Your task to perform on an android device: Open Google Chrome and click the shortcut for Amazon.com Image 0: 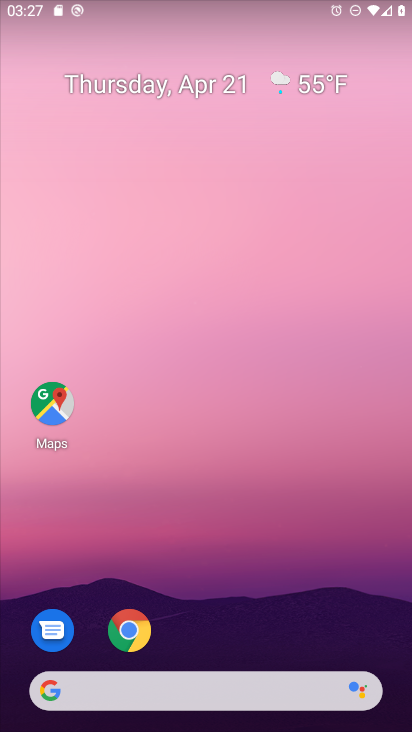
Step 0: click (133, 626)
Your task to perform on an android device: Open Google Chrome and click the shortcut for Amazon.com Image 1: 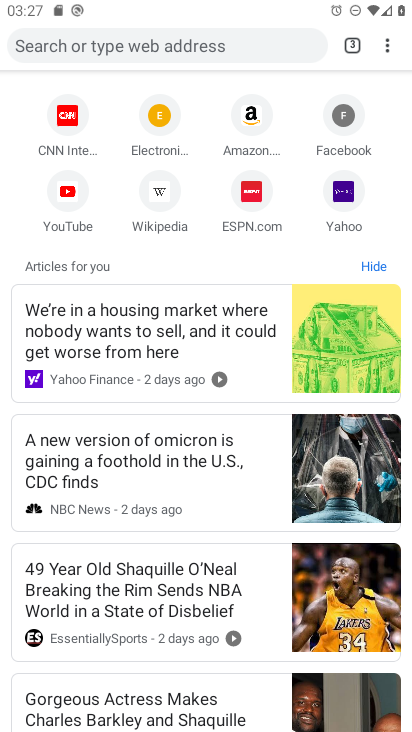
Step 1: click (250, 117)
Your task to perform on an android device: Open Google Chrome and click the shortcut for Amazon.com Image 2: 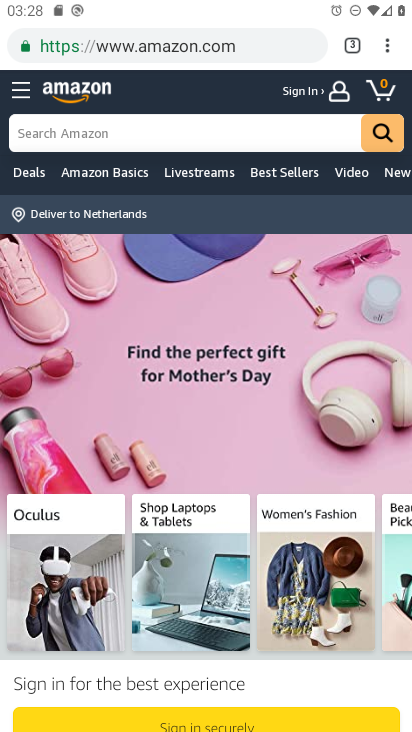
Step 2: task complete